Your task to perform on an android device: allow notifications from all sites in the chrome app Image 0: 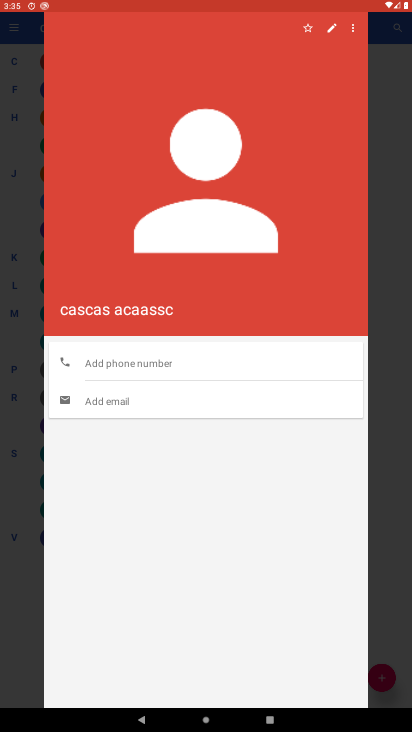
Step 0: press home button
Your task to perform on an android device: allow notifications from all sites in the chrome app Image 1: 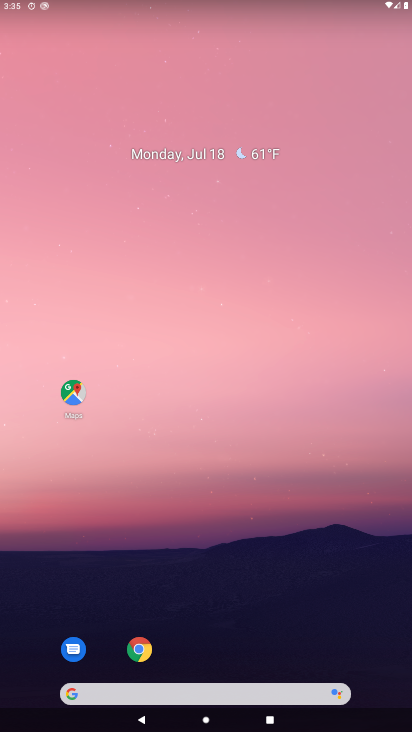
Step 1: click (131, 640)
Your task to perform on an android device: allow notifications from all sites in the chrome app Image 2: 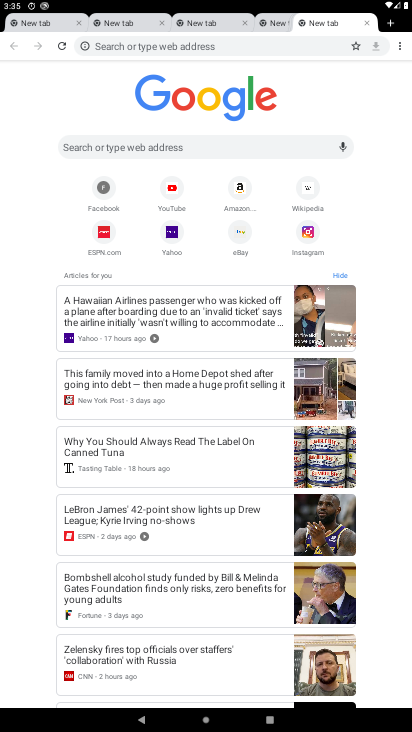
Step 2: click (398, 41)
Your task to perform on an android device: allow notifications from all sites in the chrome app Image 3: 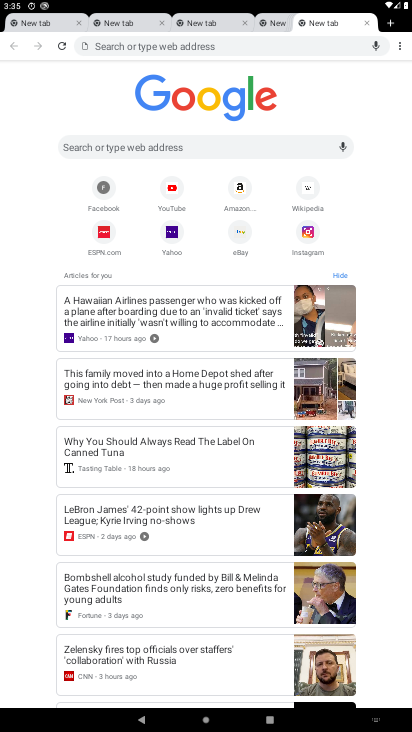
Step 3: click (393, 45)
Your task to perform on an android device: allow notifications from all sites in the chrome app Image 4: 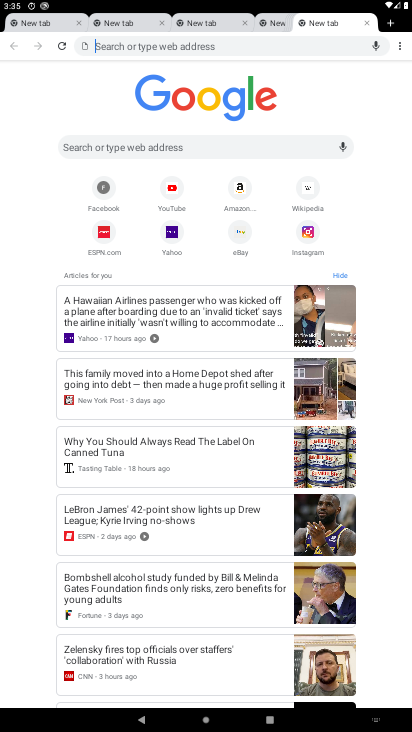
Step 4: click (396, 41)
Your task to perform on an android device: allow notifications from all sites in the chrome app Image 5: 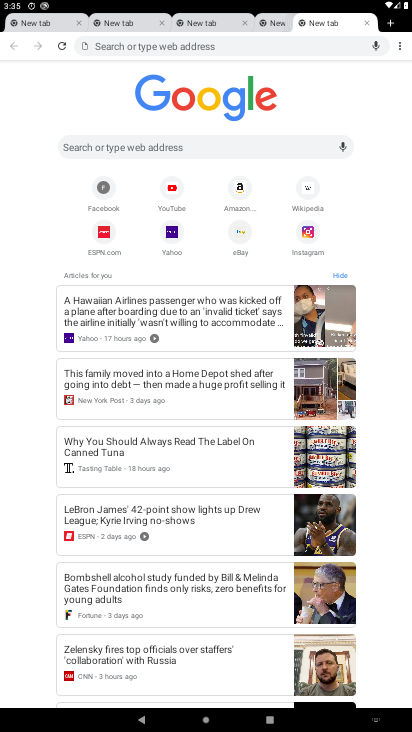
Step 5: click (394, 45)
Your task to perform on an android device: allow notifications from all sites in the chrome app Image 6: 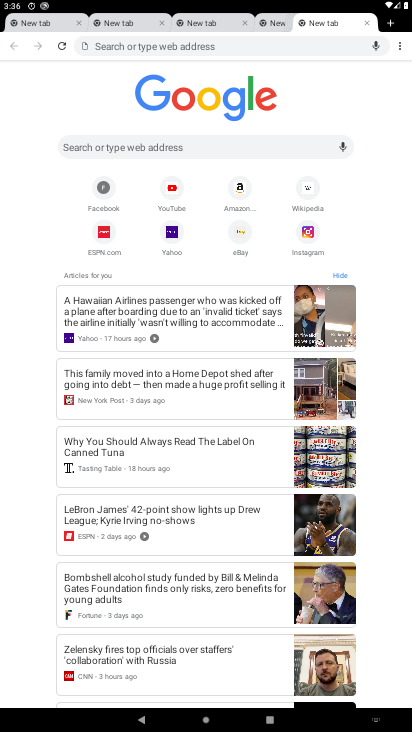
Step 6: task complete